Your task to perform on an android device: turn vacation reply on in the gmail app Image 0: 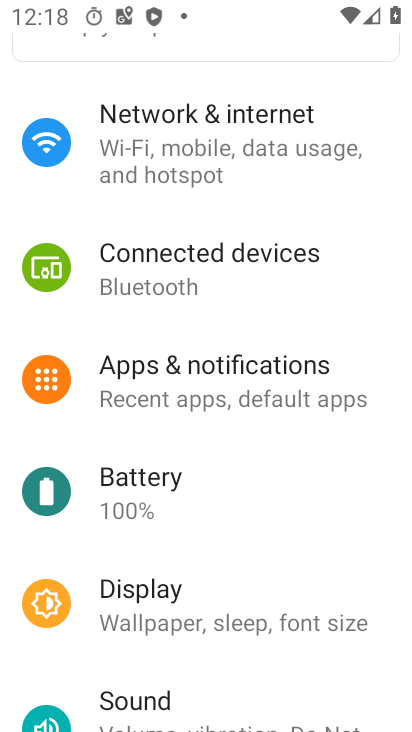
Step 0: press back button
Your task to perform on an android device: turn vacation reply on in the gmail app Image 1: 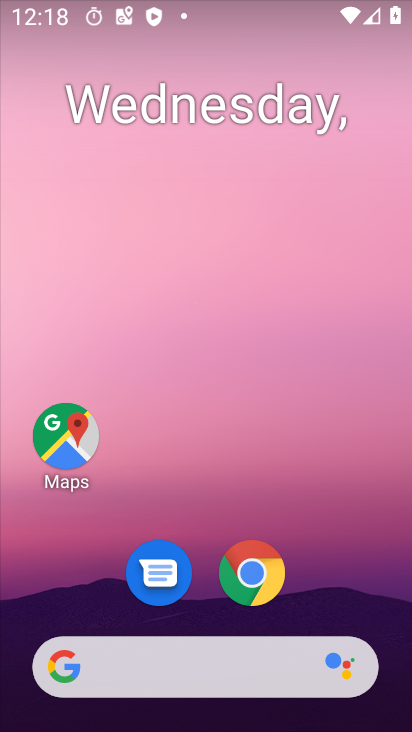
Step 1: drag from (398, 683) to (194, 171)
Your task to perform on an android device: turn vacation reply on in the gmail app Image 2: 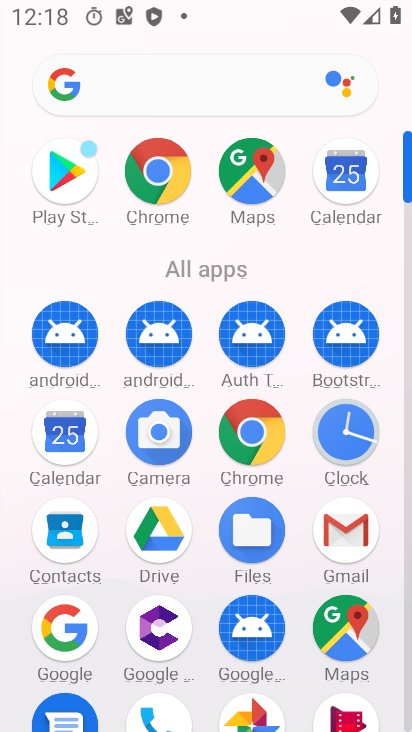
Step 2: click (337, 530)
Your task to perform on an android device: turn vacation reply on in the gmail app Image 3: 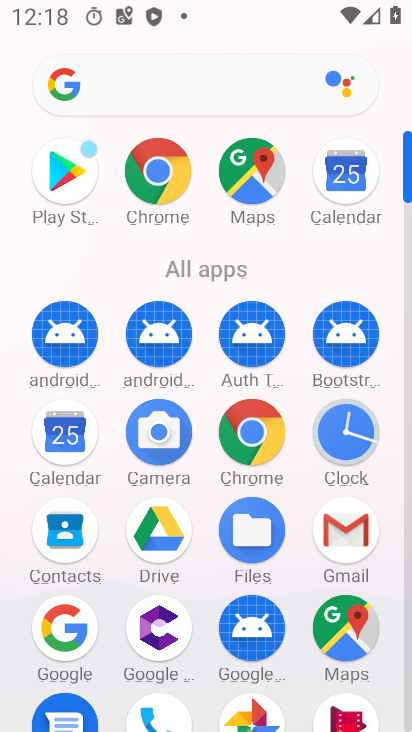
Step 3: click (340, 528)
Your task to perform on an android device: turn vacation reply on in the gmail app Image 4: 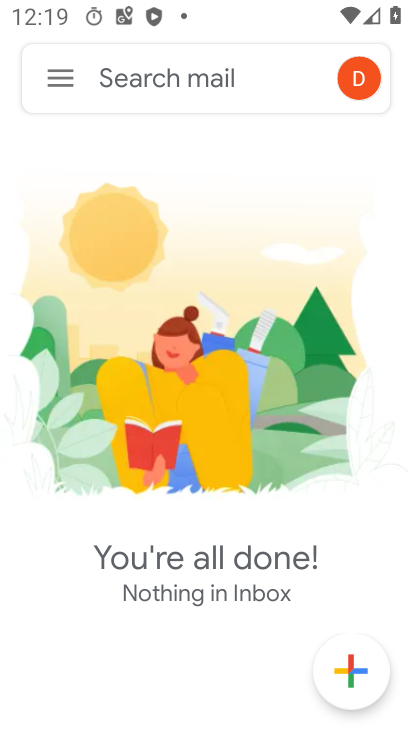
Step 4: click (48, 74)
Your task to perform on an android device: turn vacation reply on in the gmail app Image 5: 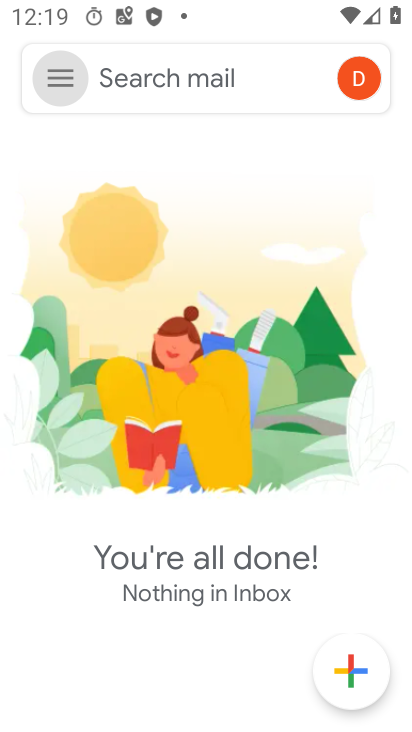
Step 5: click (49, 75)
Your task to perform on an android device: turn vacation reply on in the gmail app Image 6: 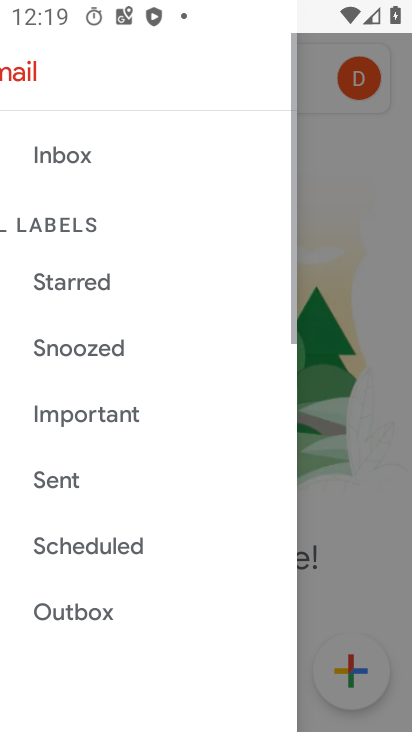
Step 6: click (49, 75)
Your task to perform on an android device: turn vacation reply on in the gmail app Image 7: 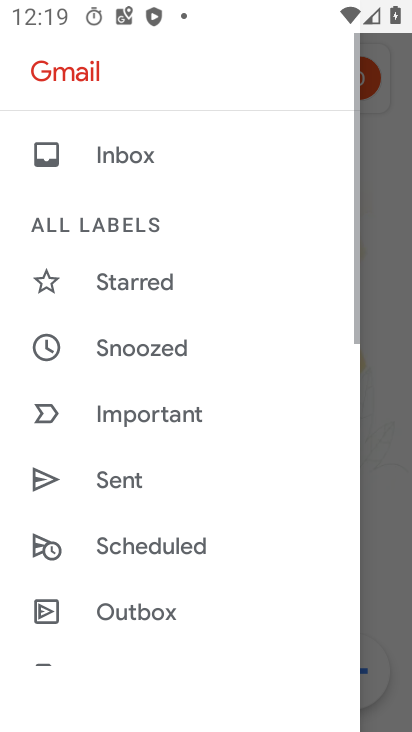
Step 7: click (55, 83)
Your task to perform on an android device: turn vacation reply on in the gmail app Image 8: 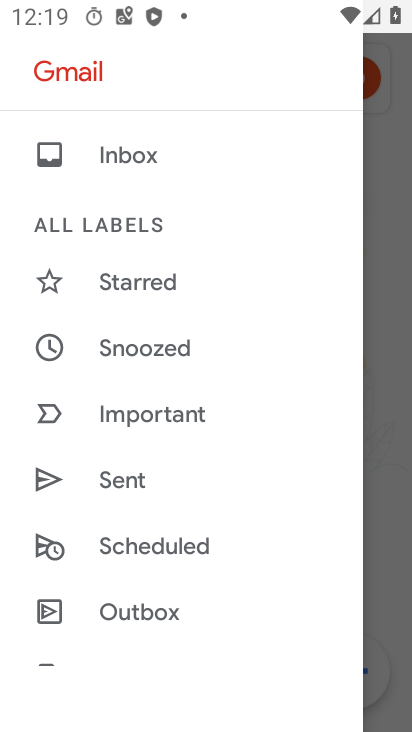
Step 8: drag from (227, 482) to (244, 166)
Your task to perform on an android device: turn vacation reply on in the gmail app Image 9: 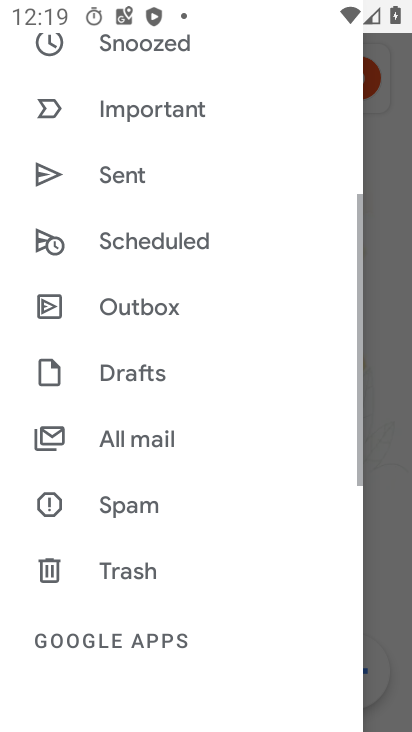
Step 9: drag from (307, 408) to (291, 131)
Your task to perform on an android device: turn vacation reply on in the gmail app Image 10: 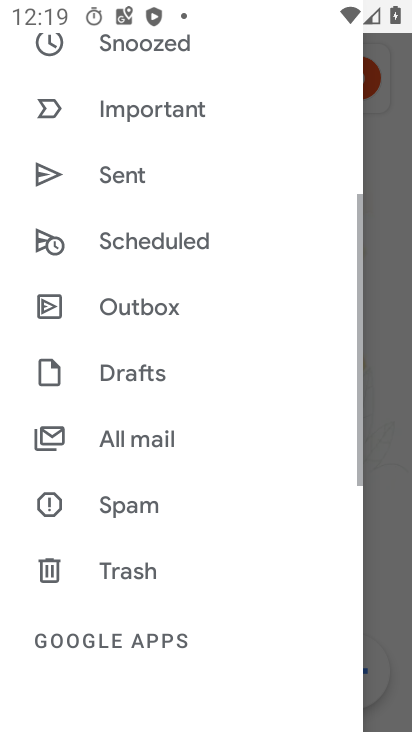
Step 10: drag from (223, 411) to (224, 156)
Your task to perform on an android device: turn vacation reply on in the gmail app Image 11: 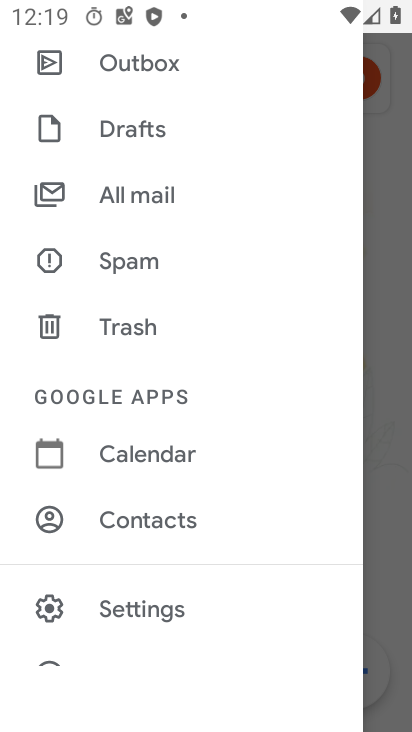
Step 11: click (129, 606)
Your task to perform on an android device: turn vacation reply on in the gmail app Image 12: 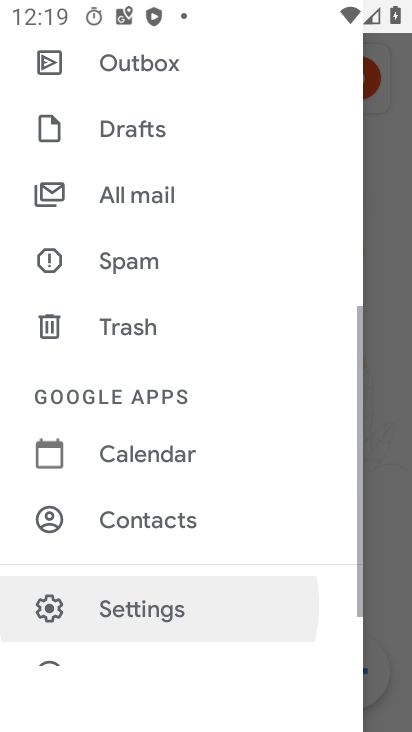
Step 12: click (131, 608)
Your task to perform on an android device: turn vacation reply on in the gmail app Image 13: 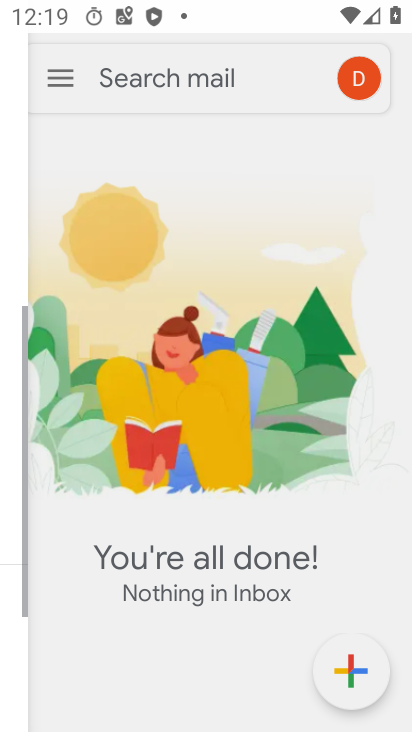
Step 13: click (131, 608)
Your task to perform on an android device: turn vacation reply on in the gmail app Image 14: 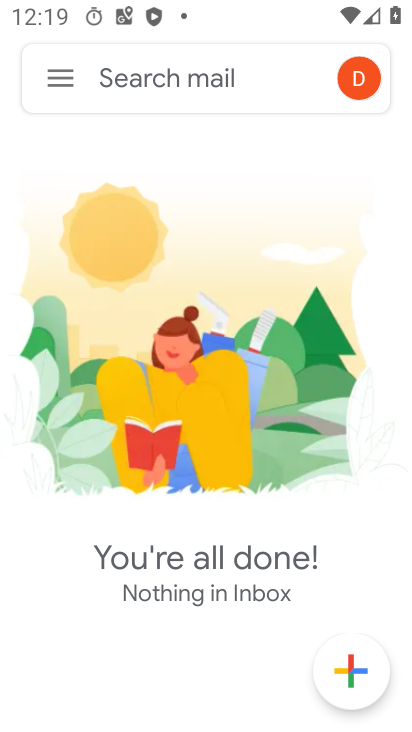
Step 14: click (131, 608)
Your task to perform on an android device: turn vacation reply on in the gmail app Image 15: 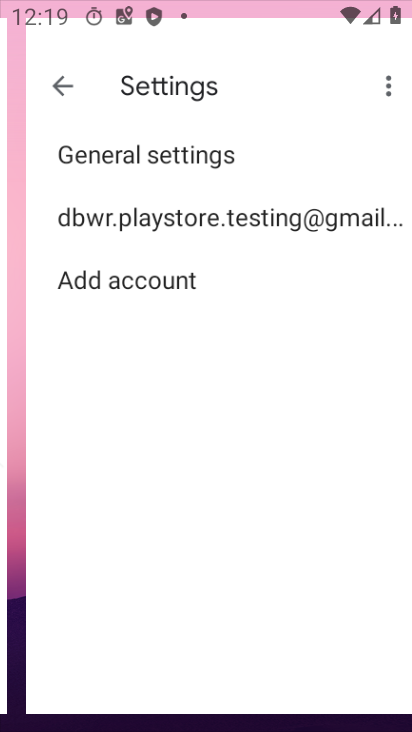
Step 15: click (134, 606)
Your task to perform on an android device: turn vacation reply on in the gmail app Image 16: 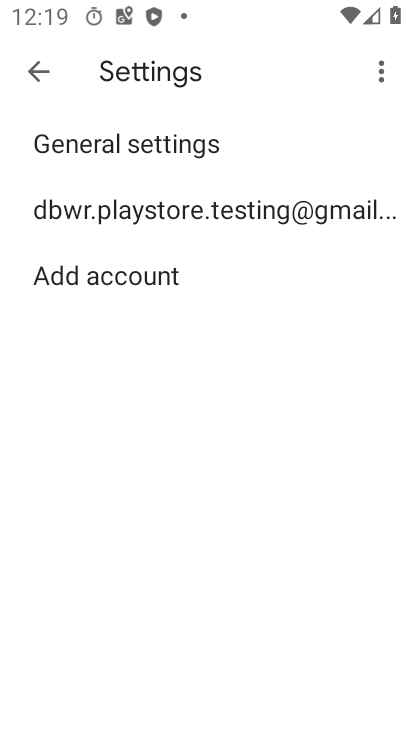
Step 16: click (144, 210)
Your task to perform on an android device: turn vacation reply on in the gmail app Image 17: 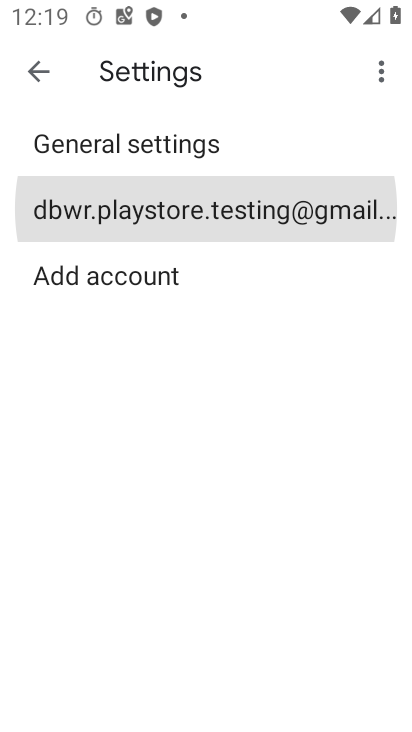
Step 17: click (144, 208)
Your task to perform on an android device: turn vacation reply on in the gmail app Image 18: 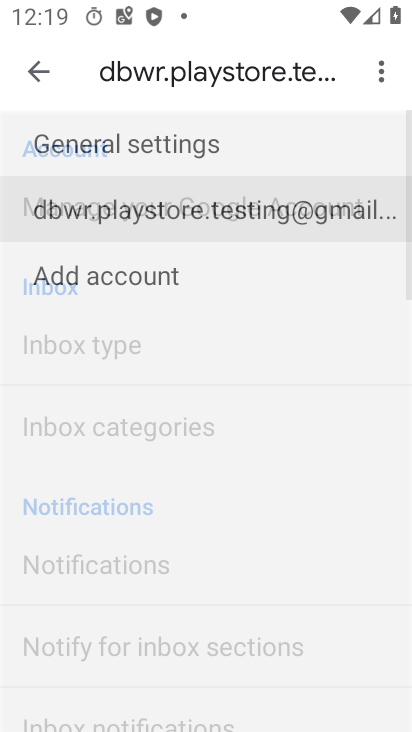
Step 18: click (145, 208)
Your task to perform on an android device: turn vacation reply on in the gmail app Image 19: 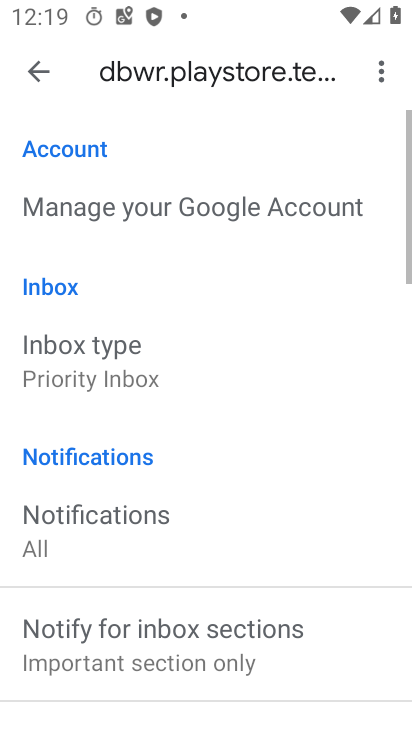
Step 19: drag from (166, 455) to (224, 9)
Your task to perform on an android device: turn vacation reply on in the gmail app Image 20: 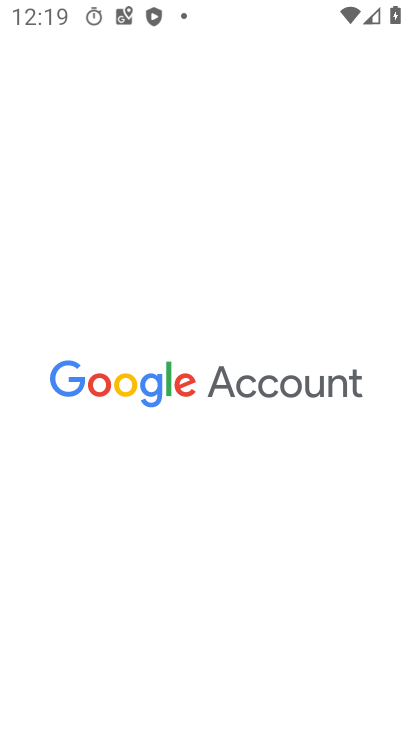
Step 20: drag from (246, 408) to (243, 102)
Your task to perform on an android device: turn vacation reply on in the gmail app Image 21: 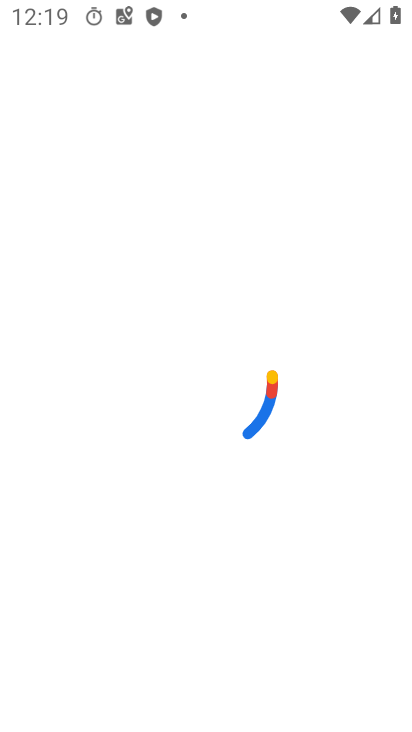
Step 21: drag from (242, 387) to (242, 224)
Your task to perform on an android device: turn vacation reply on in the gmail app Image 22: 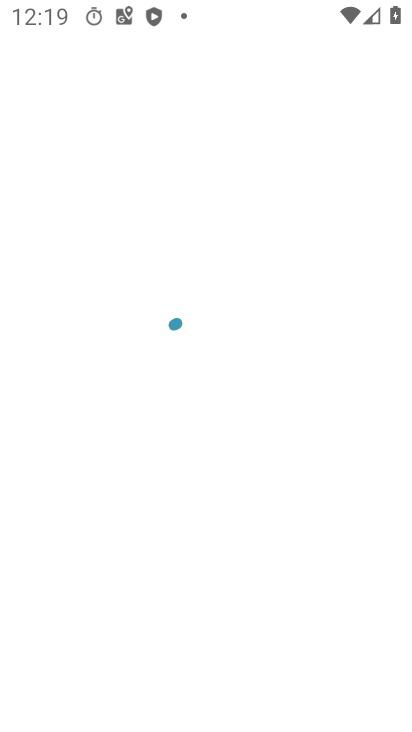
Step 22: press back button
Your task to perform on an android device: turn vacation reply on in the gmail app Image 23: 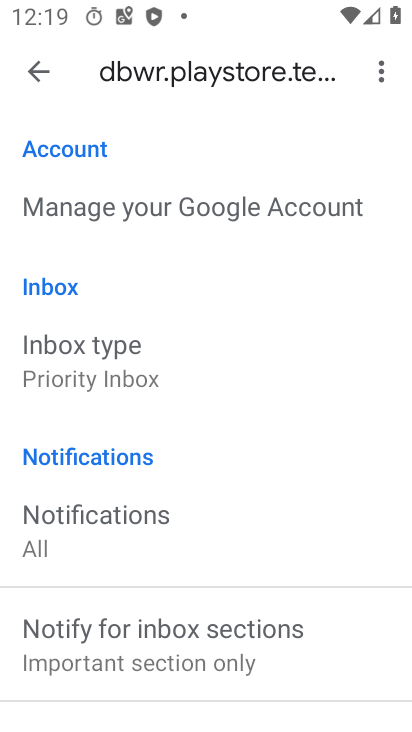
Step 23: drag from (98, 514) to (55, 108)
Your task to perform on an android device: turn vacation reply on in the gmail app Image 24: 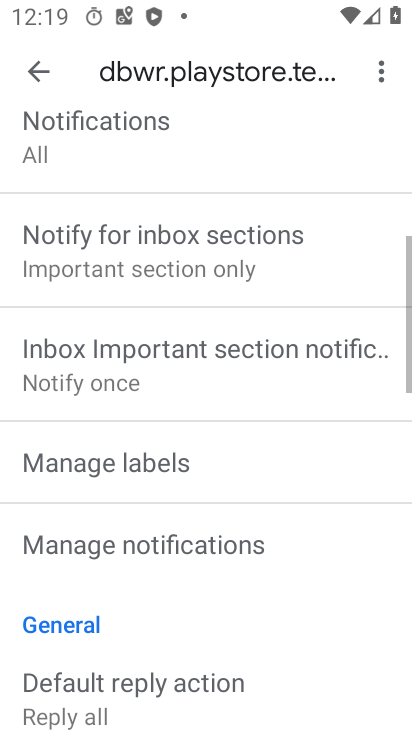
Step 24: drag from (138, 385) to (138, 145)
Your task to perform on an android device: turn vacation reply on in the gmail app Image 25: 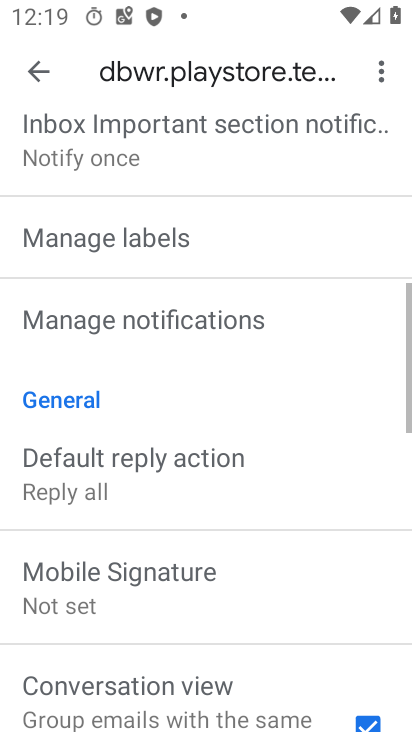
Step 25: drag from (178, 351) to (175, 75)
Your task to perform on an android device: turn vacation reply on in the gmail app Image 26: 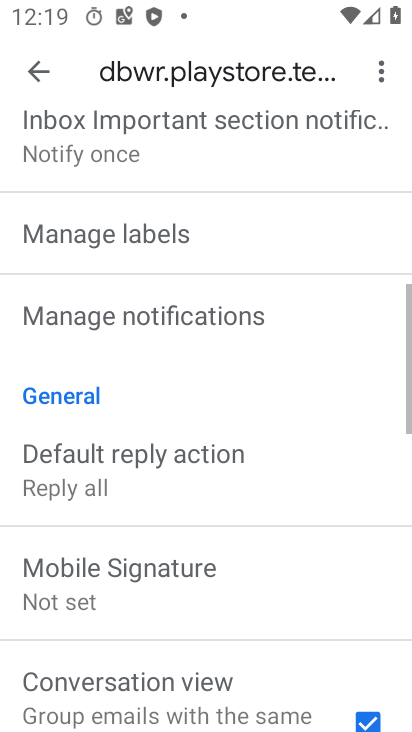
Step 26: drag from (193, 421) to (192, 151)
Your task to perform on an android device: turn vacation reply on in the gmail app Image 27: 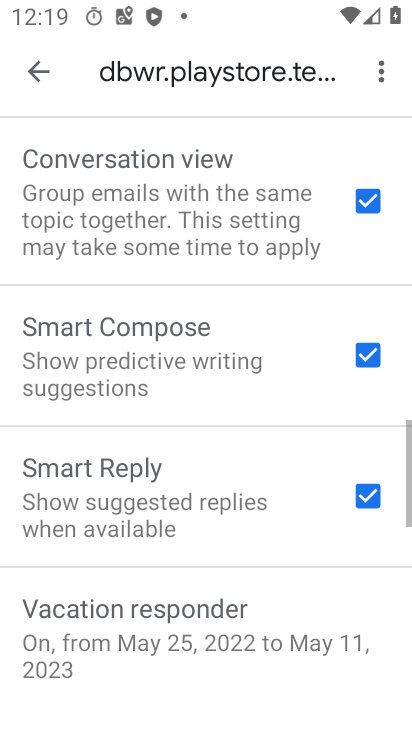
Step 27: drag from (213, 303) to (241, 152)
Your task to perform on an android device: turn vacation reply on in the gmail app Image 28: 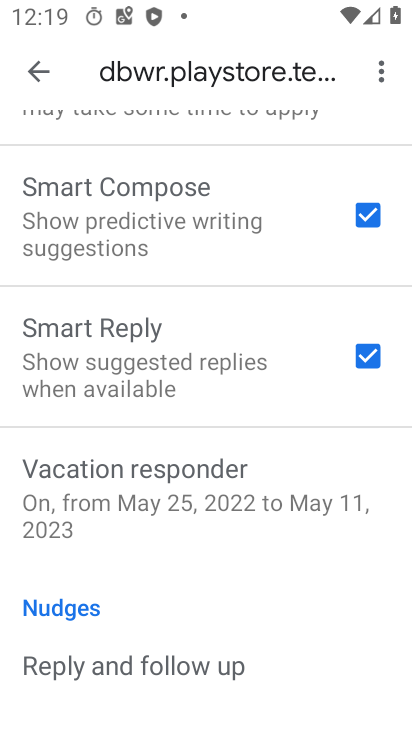
Step 28: click (137, 480)
Your task to perform on an android device: turn vacation reply on in the gmail app Image 29: 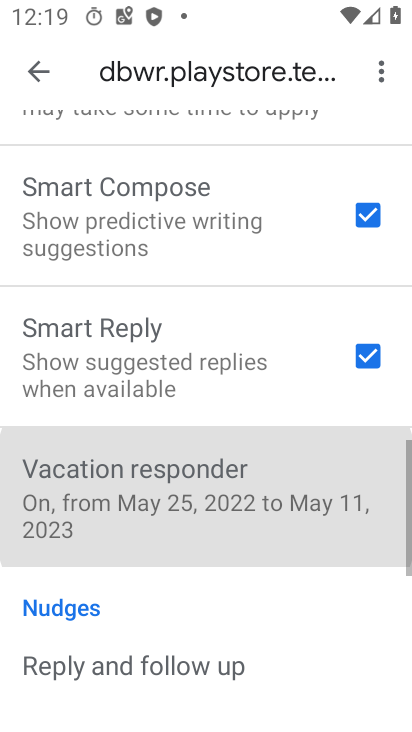
Step 29: click (137, 480)
Your task to perform on an android device: turn vacation reply on in the gmail app Image 30: 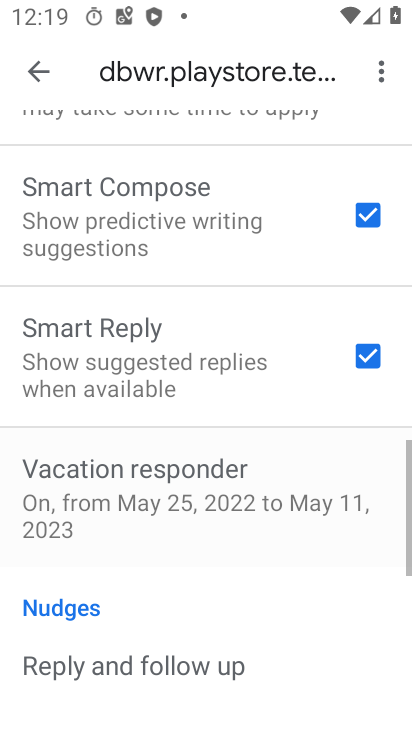
Step 30: click (137, 480)
Your task to perform on an android device: turn vacation reply on in the gmail app Image 31: 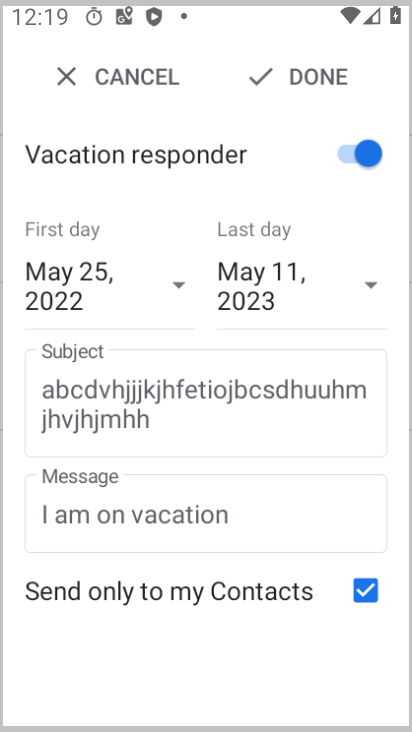
Step 31: click (142, 489)
Your task to perform on an android device: turn vacation reply on in the gmail app Image 32: 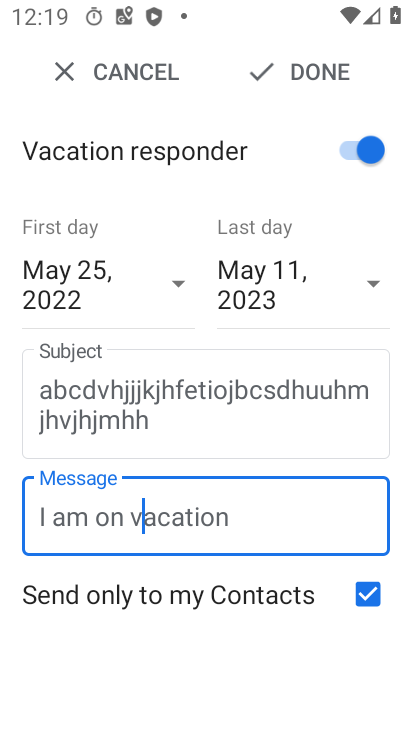
Step 32: click (145, 489)
Your task to perform on an android device: turn vacation reply on in the gmail app Image 33: 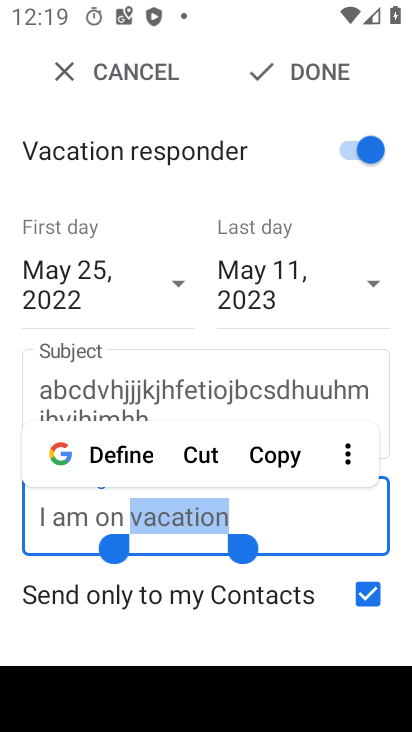
Step 33: click (251, 524)
Your task to perform on an android device: turn vacation reply on in the gmail app Image 34: 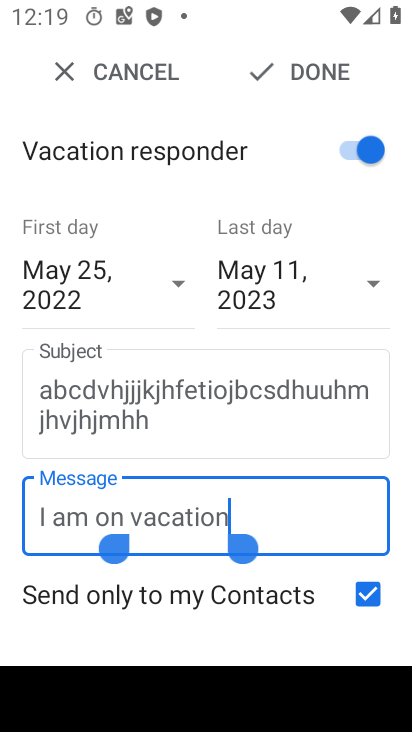
Step 34: click (250, 524)
Your task to perform on an android device: turn vacation reply on in the gmail app Image 35: 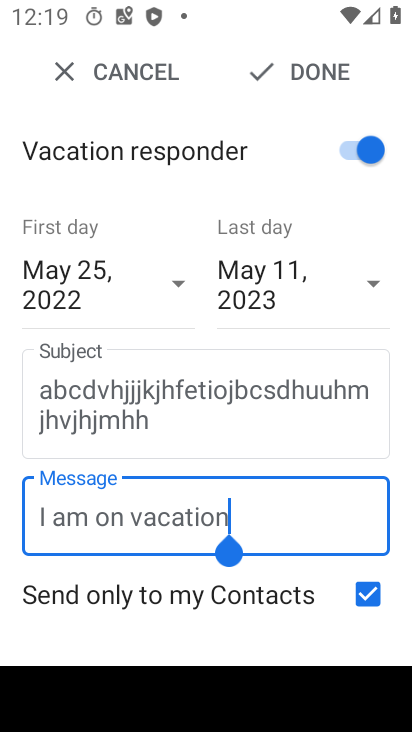
Step 35: click (250, 523)
Your task to perform on an android device: turn vacation reply on in the gmail app Image 36: 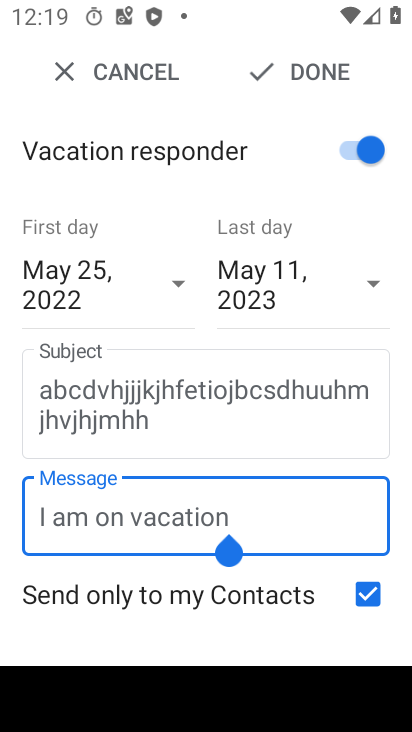
Step 36: click (250, 522)
Your task to perform on an android device: turn vacation reply on in the gmail app Image 37: 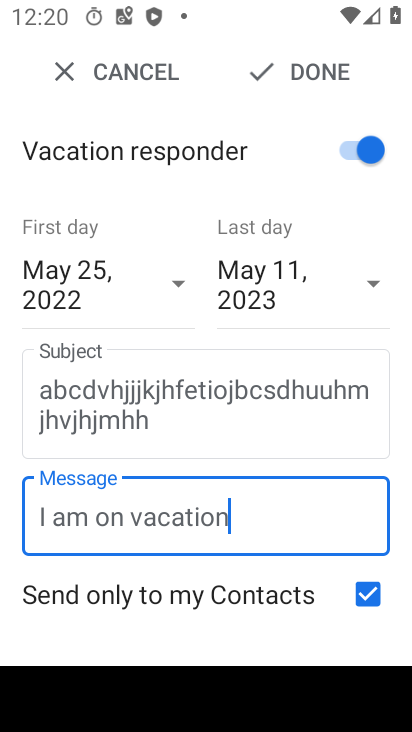
Step 37: task complete